Your task to perform on an android device: toggle show notifications on the lock screen Image 0: 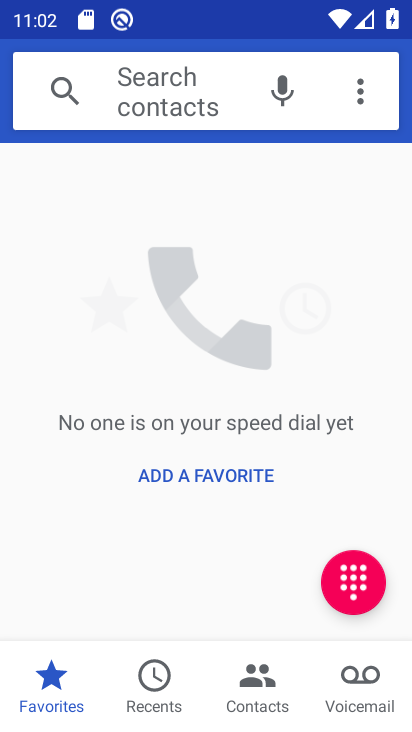
Step 0: press home button
Your task to perform on an android device: toggle show notifications on the lock screen Image 1: 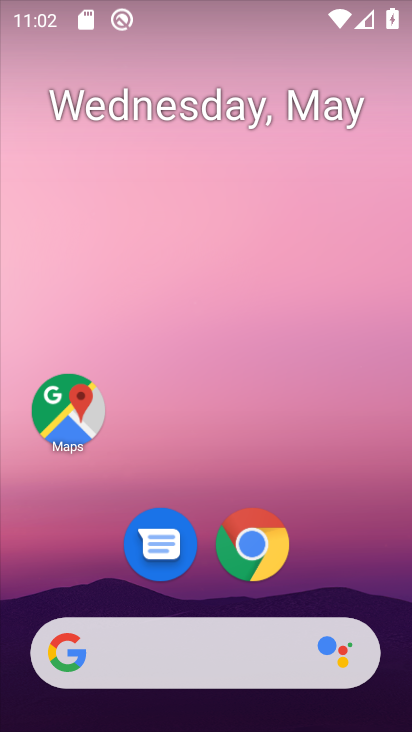
Step 1: drag from (317, 566) to (101, 178)
Your task to perform on an android device: toggle show notifications on the lock screen Image 2: 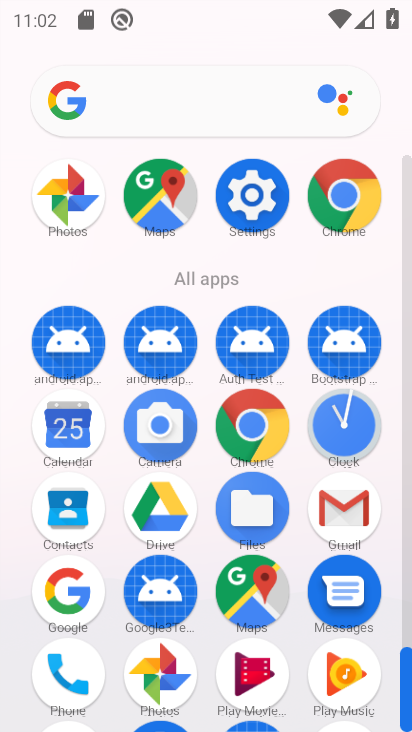
Step 2: click (249, 218)
Your task to perform on an android device: toggle show notifications on the lock screen Image 3: 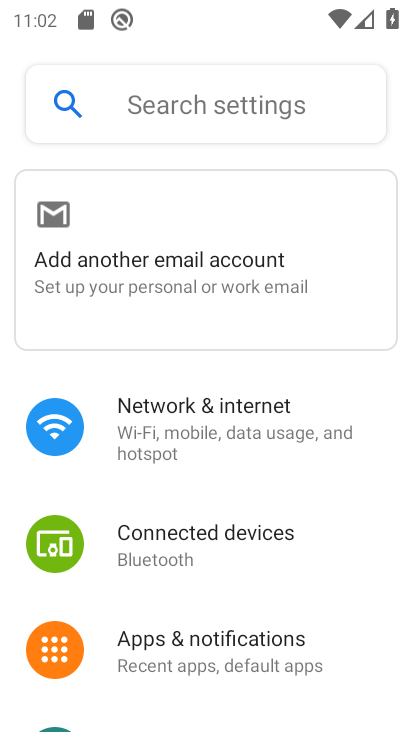
Step 3: click (207, 667)
Your task to perform on an android device: toggle show notifications on the lock screen Image 4: 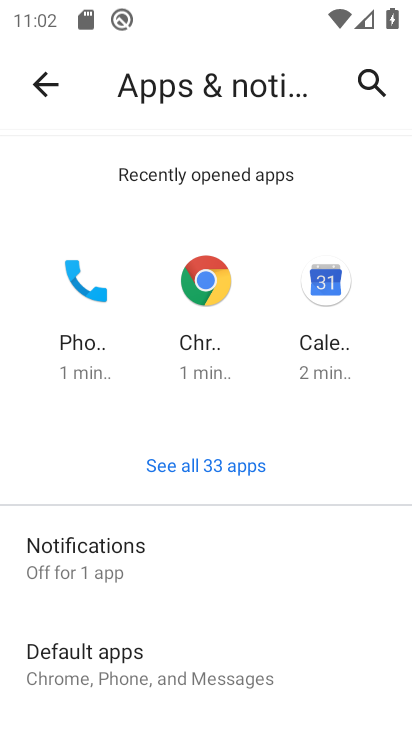
Step 4: click (118, 574)
Your task to perform on an android device: toggle show notifications on the lock screen Image 5: 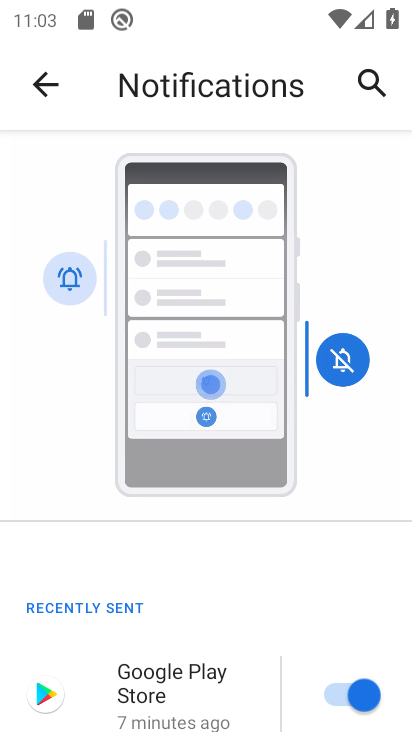
Step 5: drag from (93, 659) to (110, 95)
Your task to perform on an android device: toggle show notifications on the lock screen Image 6: 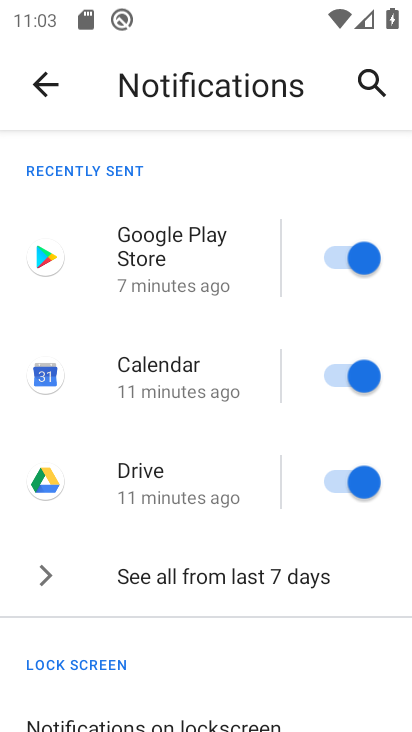
Step 6: click (101, 719)
Your task to perform on an android device: toggle show notifications on the lock screen Image 7: 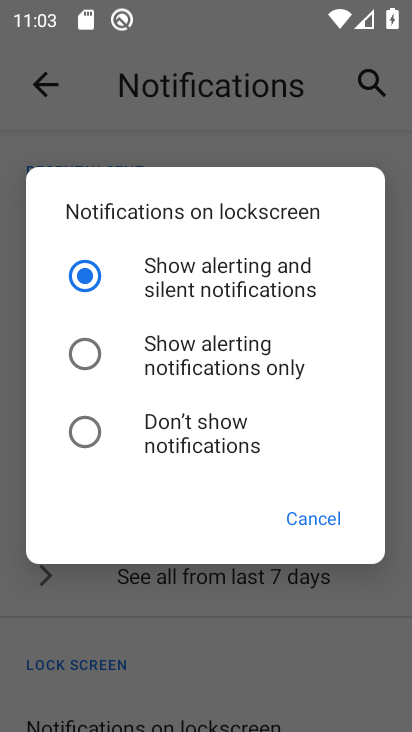
Step 7: click (188, 362)
Your task to perform on an android device: toggle show notifications on the lock screen Image 8: 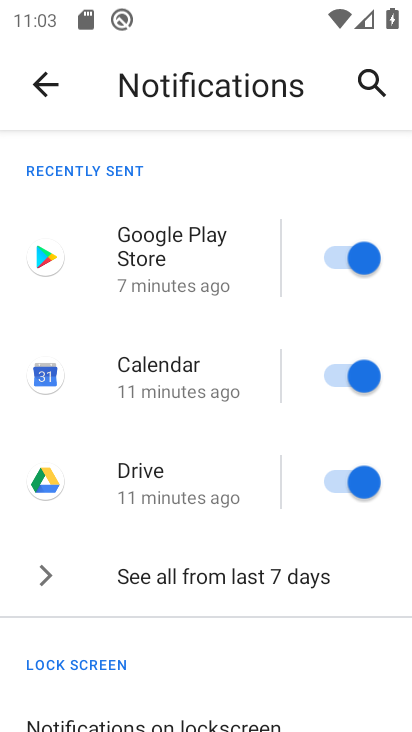
Step 8: task complete